Your task to perform on an android device: Add usb-b to the cart on ebay Image 0: 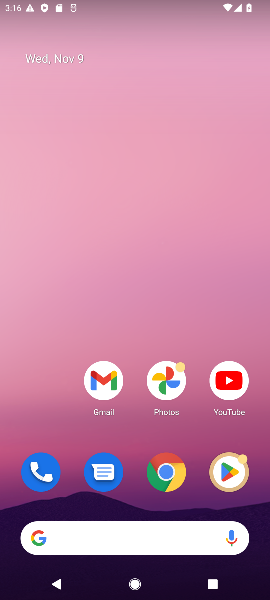
Step 0: click (132, 527)
Your task to perform on an android device: Add usb-b to the cart on ebay Image 1: 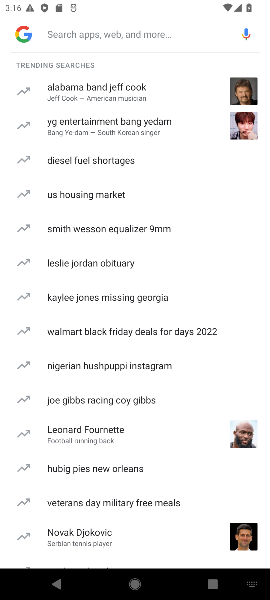
Step 1: type "ebay"
Your task to perform on an android device: Add usb-b to the cart on ebay Image 2: 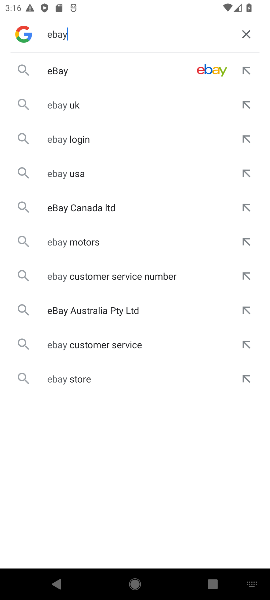
Step 2: click (50, 68)
Your task to perform on an android device: Add usb-b to the cart on ebay Image 3: 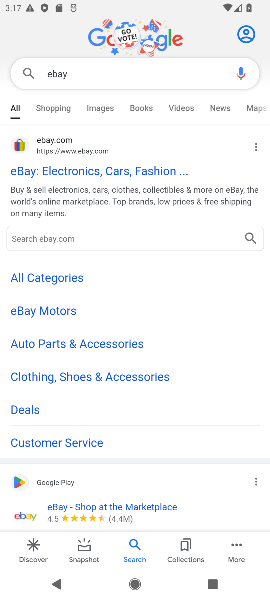
Step 3: click (61, 133)
Your task to perform on an android device: Add usb-b to the cart on ebay Image 4: 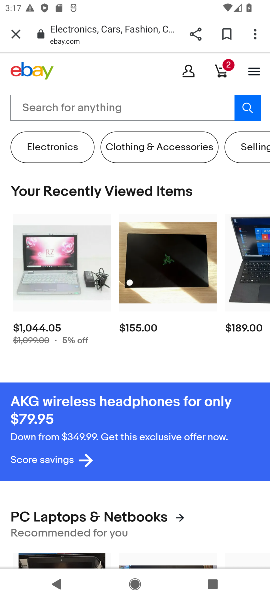
Step 4: click (84, 107)
Your task to perform on an android device: Add usb-b to the cart on ebay Image 5: 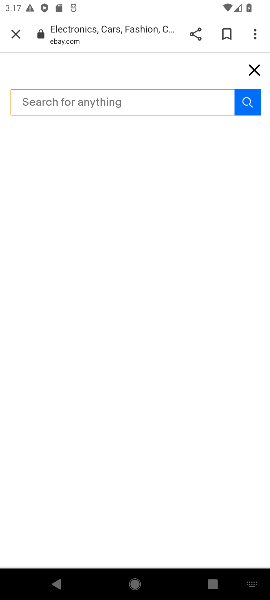
Step 5: type "usb-b "
Your task to perform on an android device: Add usb-b to the cart on ebay Image 6: 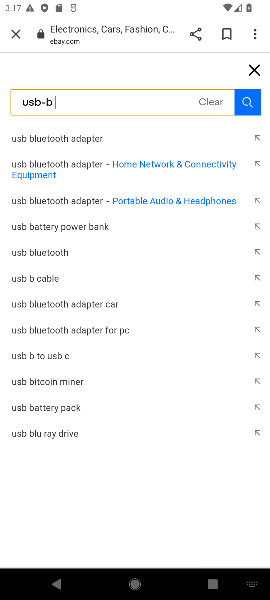
Step 6: click (245, 100)
Your task to perform on an android device: Add usb-b to the cart on ebay Image 7: 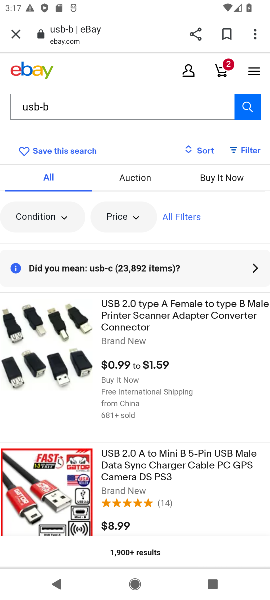
Step 7: click (129, 305)
Your task to perform on an android device: Add usb-b to the cart on ebay Image 8: 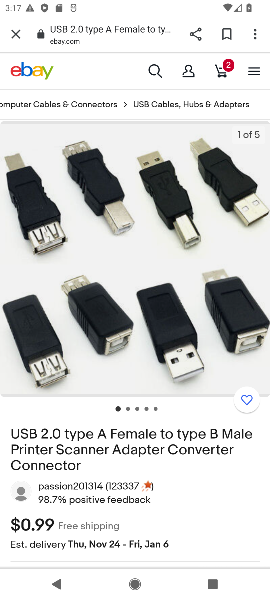
Step 8: drag from (182, 508) to (152, 195)
Your task to perform on an android device: Add usb-b to the cart on ebay Image 9: 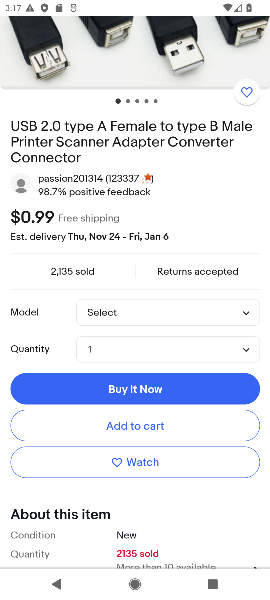
Step 9: click (124, 424)
Your task to perform on an android device: Add usb-b to the cart on ebay Image 10: 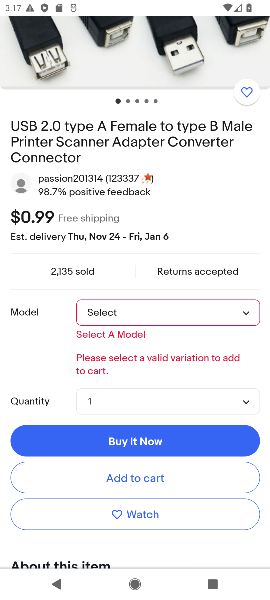
Step 10: click (198, 308)
Your task to perform on an android device: Add usb-b to the cart on ebay Image 11: 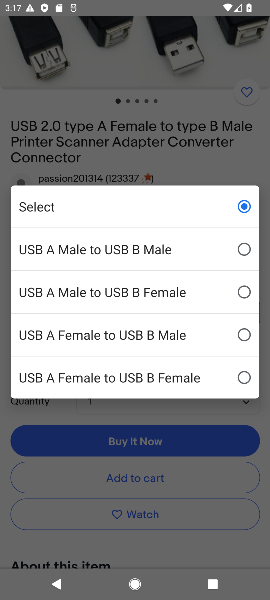
Step 11: click (244, 245)
Your task to perform on an android device: Add usb-b to the cart on ebay Image 12: 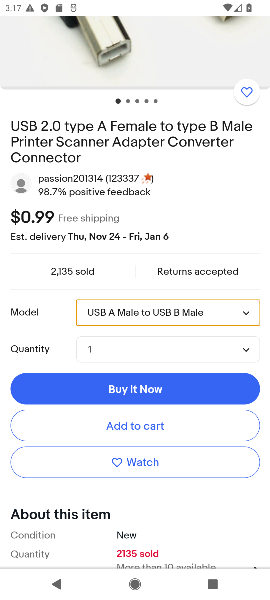
Step 12: click (135, 431)
Your task to perform on an android device: Add usb-b to the cart on ebay Image 13: 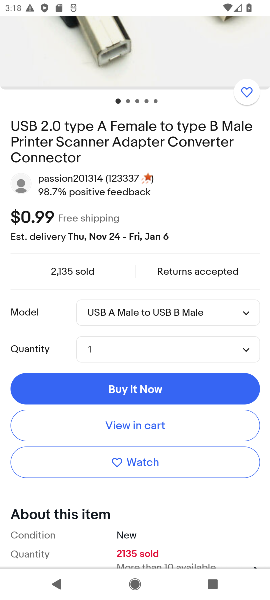
Step 13: task complete